Your task to perform on an android device: turn smart compose on in the gmail app Image 0: 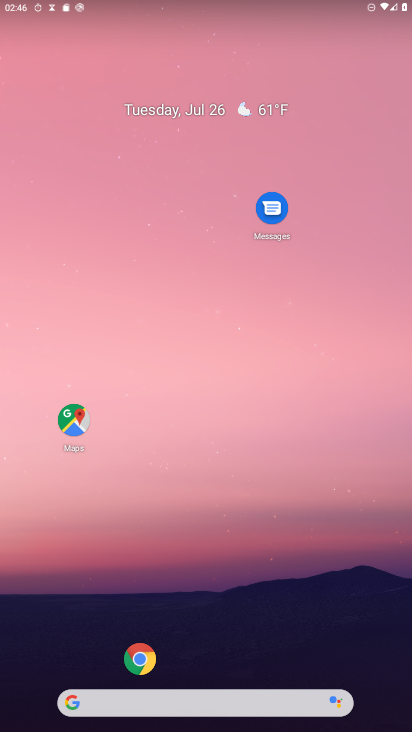
Step 0: drag from (80, 613) to (240, 105)
Your task to perform on an android device: turn smart compose on in the gmail app Image 1: 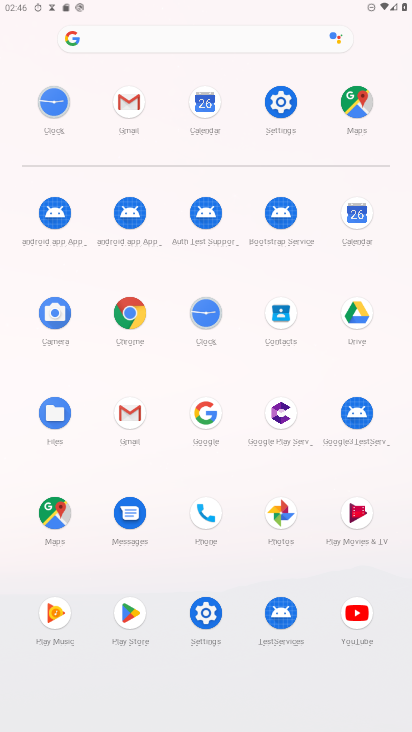
Step 1: click (151, 398)
Your task to perform on an android device: turn smart compose on in the gmail app Image 2: 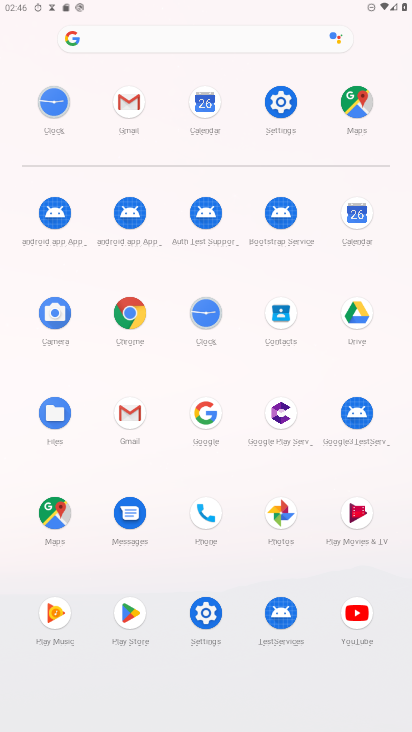
Step 2: click (131, 417)
Your task to perform on an android device: turn smart compose on in the gmail app Image 3: 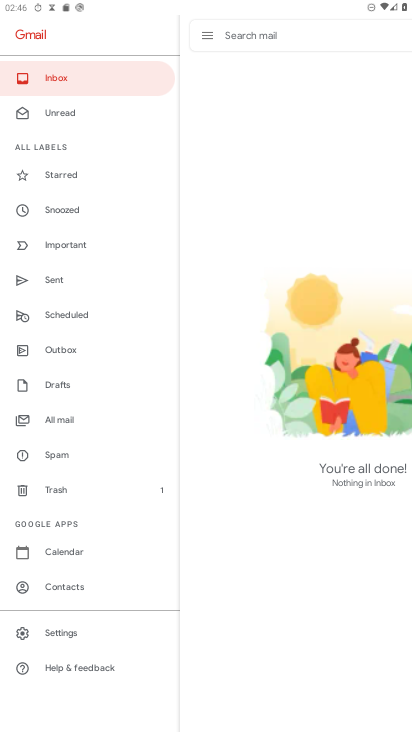
Step 3: click (61, 637)
Your task to perform on an android device: turn smart compose on in the gmail app Image 4: 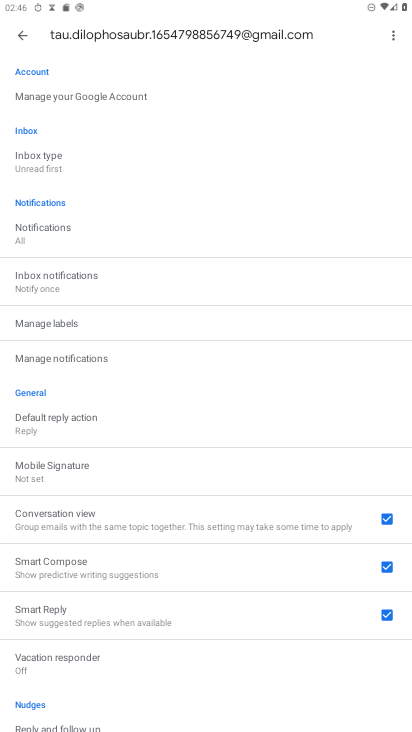
Step 4: task complete